Your task to perform on an android device: clear history in the chrome app Image 0: 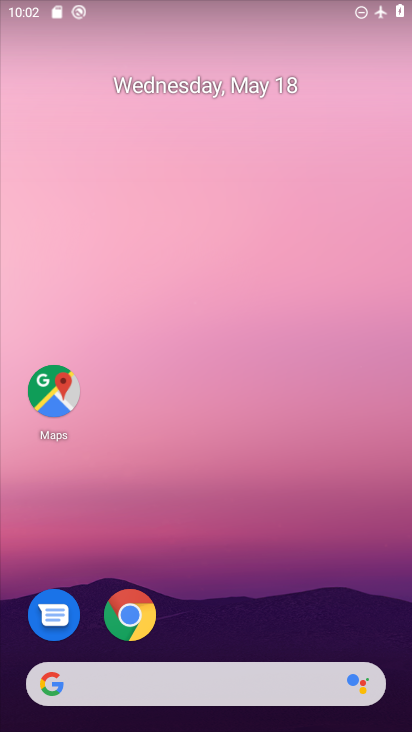
Step 0: click (125, 612)
Your task to perform on an android device: clear history in the chrome app Image 1: 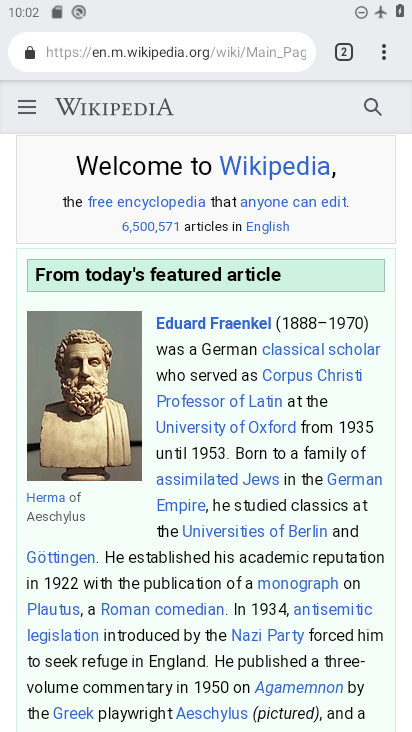
Step 1: click (378, 53)
Your task to perform on an android device: clear history in the chrome app Image 2: 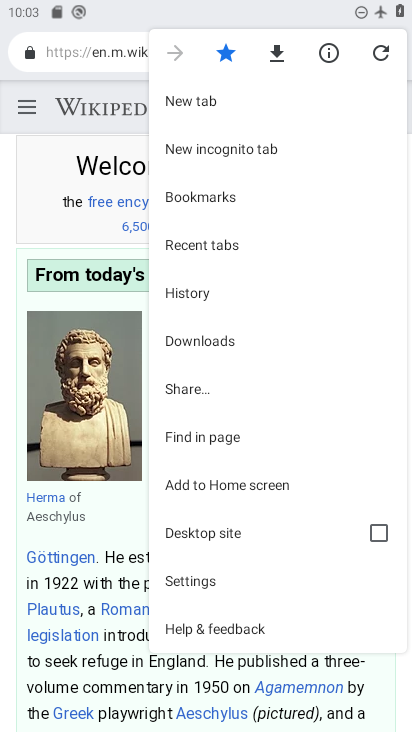
Step 2: click (205, 285)
Your task to perform on an android device: clear history in the chrome app Image 3: 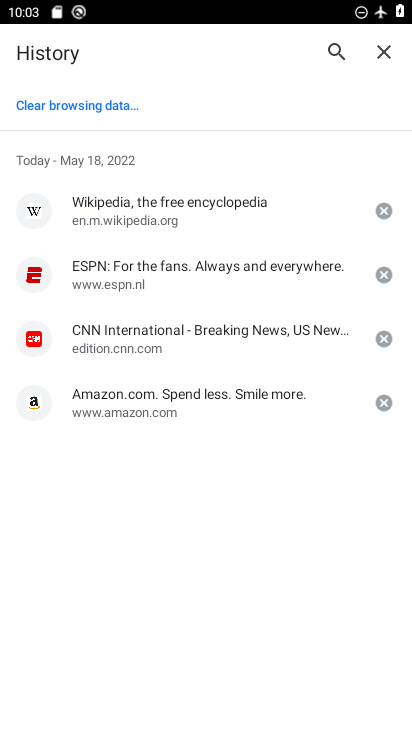
Step 3: click (143, 112)
Your task to perform on an android device: clear history in the chrome app Image 4: 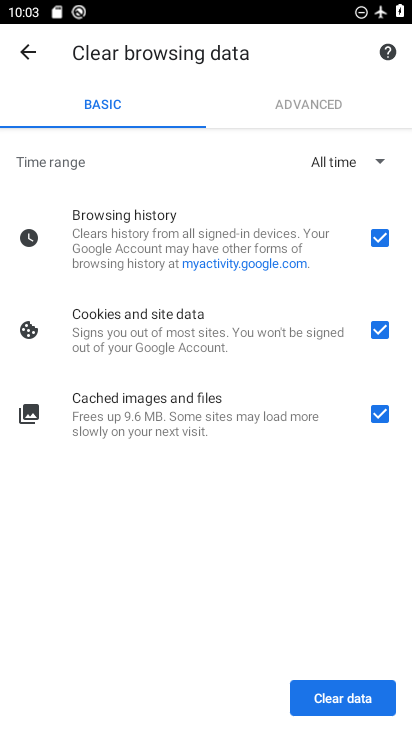
Step 4: click (386, 326)
Your task to perform on an android device: clear history in the chrome app Image 5: 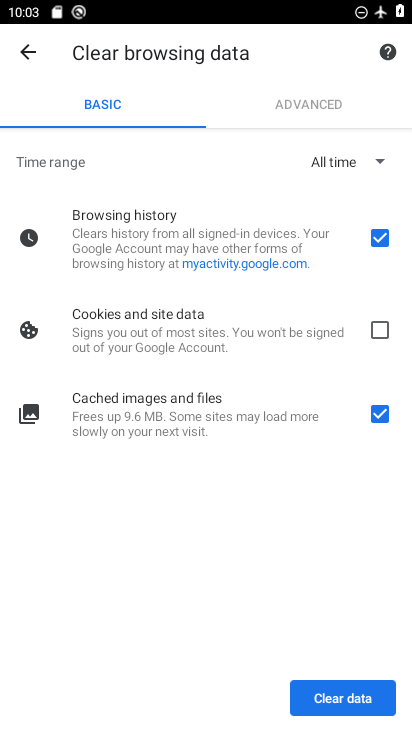
Step 5: click (379, 416)
Your task to perform on an android device: clear history in the chrome app Image 6: 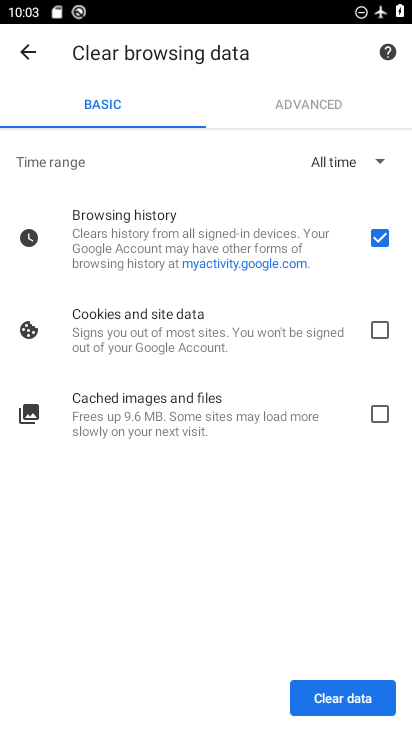
Step 6: click (344, 701)
Your task to perform on an android device: clear history in the chrome app Image 7: 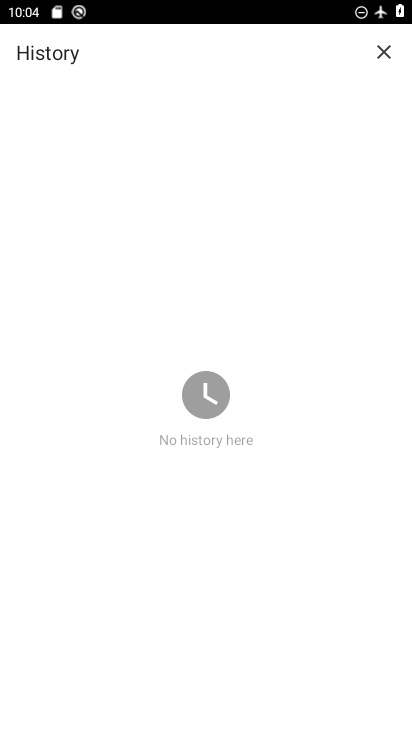
Step 7: task complete